Your task to perform on an android device: toggle data saver in the chrome app Image 0: 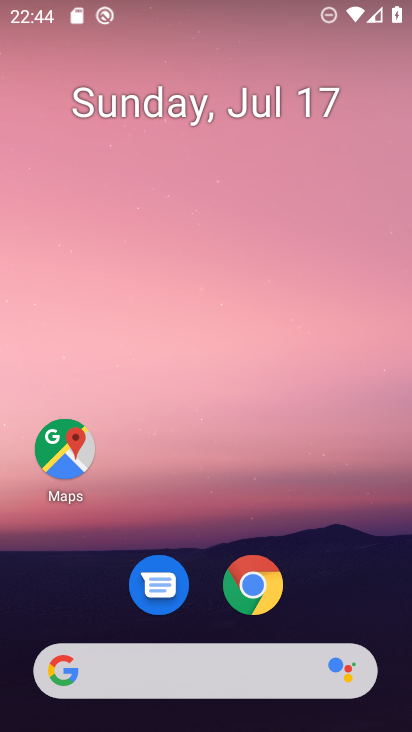
Step 0: click (244, 592)
Your task to perform on an android device: toggle data saver in the chrome app Image 1: 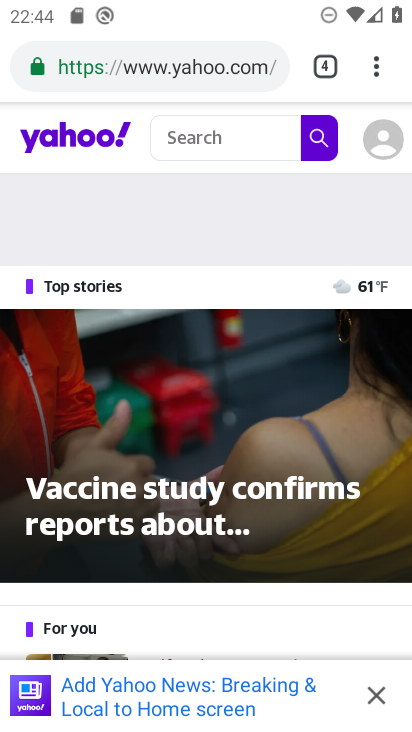
Step 1: drag from (374, 68) to (204, 587)
Your task to perform on an android device: toggle data saver in the chrome app Image 2: 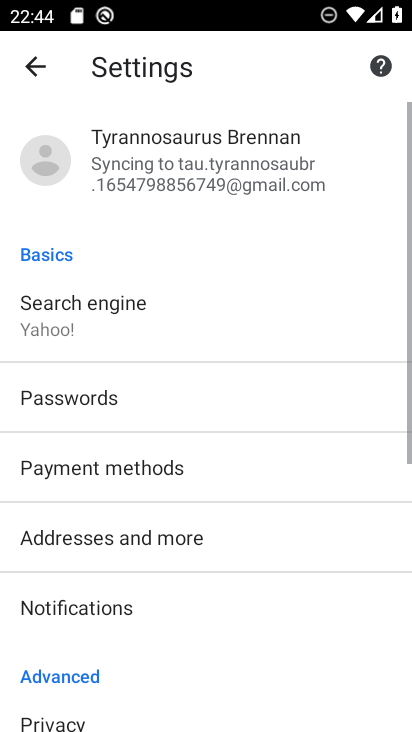
Step 2: drag from (157, 640) to (317, 132)
Your task to perform on an android device: toggle data saver in the chrome app Image 3: 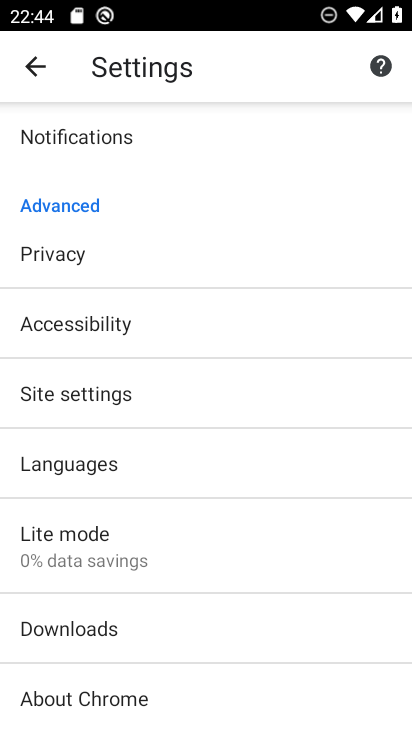
Step 3: click (108, 554)
Your task to perform on an android device: toggle data saver in the chrome app Image 4: 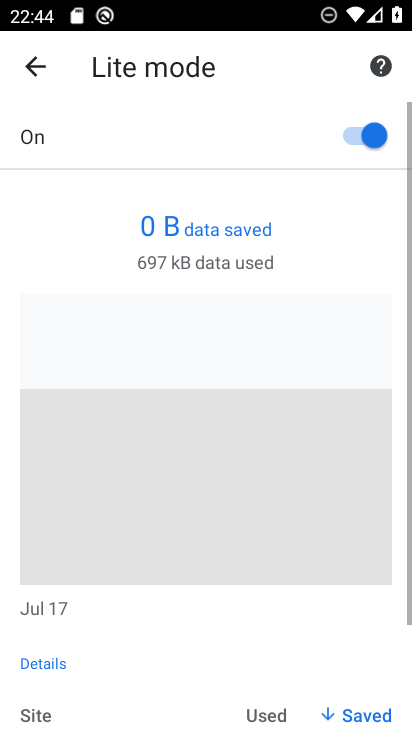
Step 4: click (362, 134)
Your task to perform on an android device: toggle data saver in the chrome app Image 5: 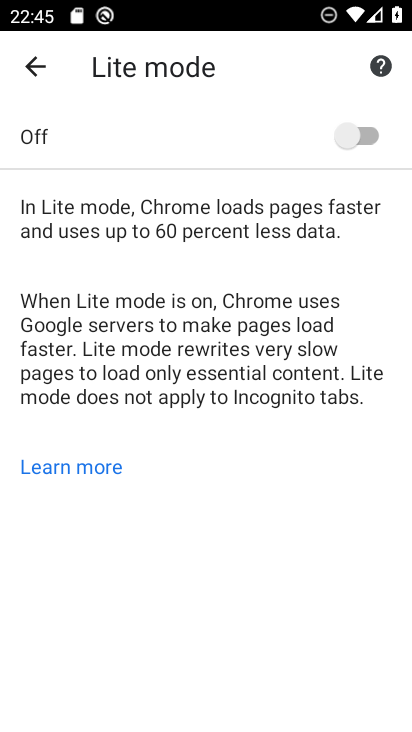
Step 5: task complete